Your task to perform on an android device: check storage Image 0: 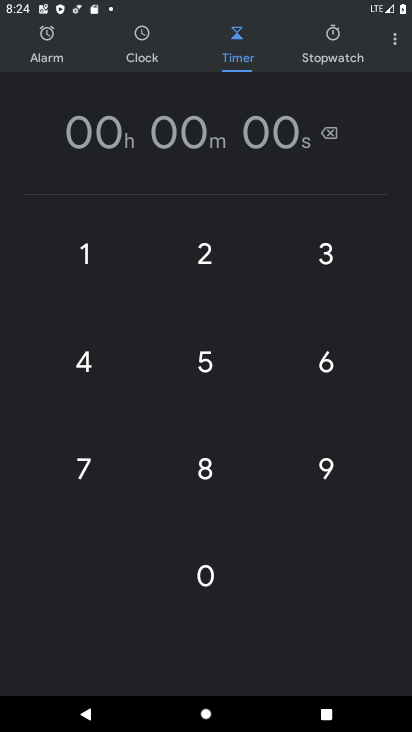
Step 0: press home button
Your task to perform on an android device: check storage Image 1: 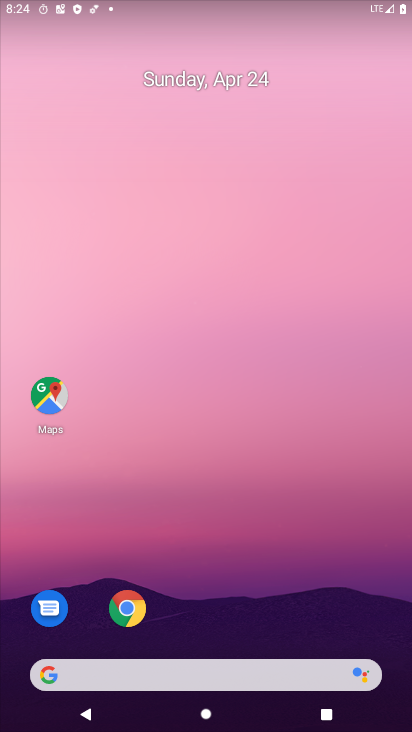
Step 1: drag from (266, 562) to (265, 39)
Your task to perform on an android device: check storage Image 2: 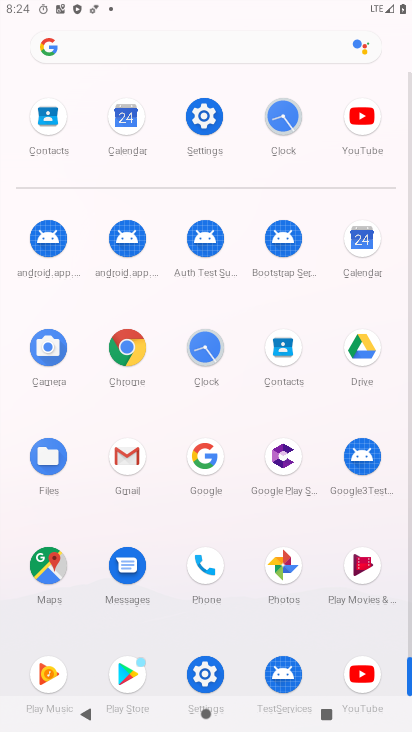
Step 2: click (206, 117)
Your task to perform on an android device: check storage Image 3: 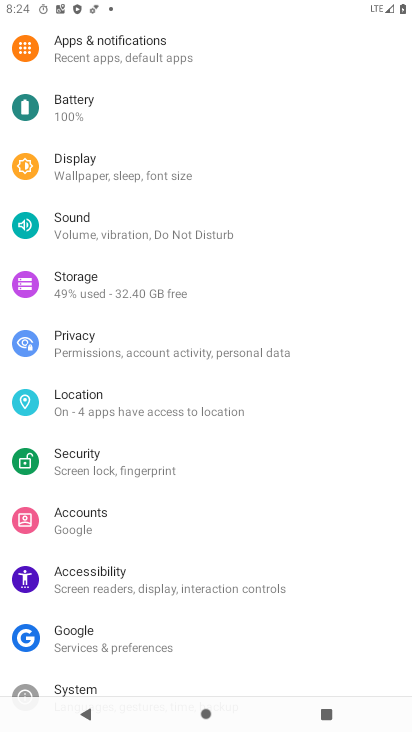
Step 3: click (148, 282)
Your task to perform on an android device: check storage Image 4: 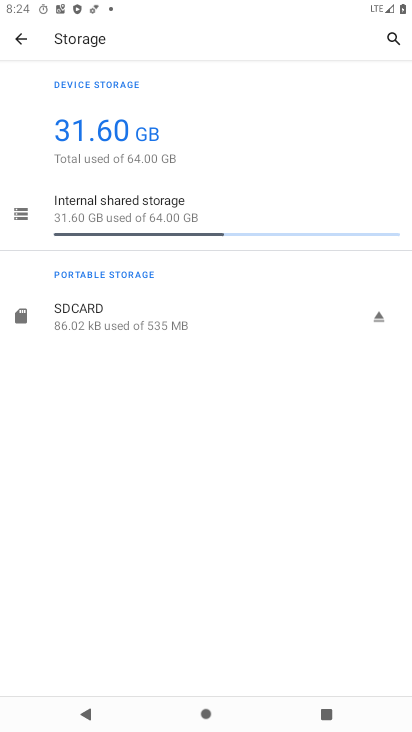
Step 4: task complete